Your task to perform on an android device: install app "eBay: The shopping marketplace" Image 0: 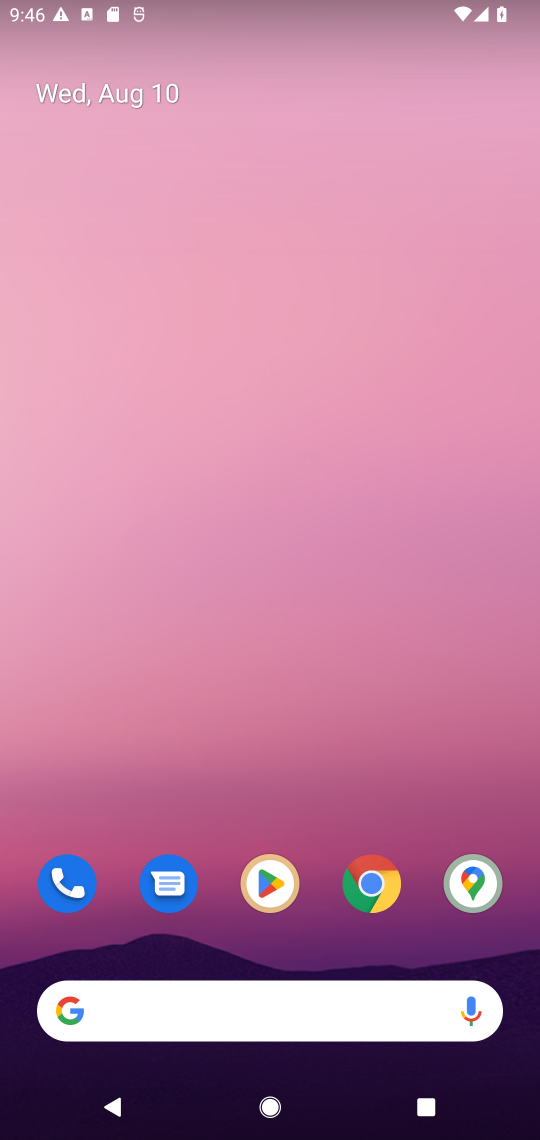
Step 0: drag from (338, 911) to (329, 215)
Your task to perform on an android device: install app "eBay: The shopping marketplace" Image 1: 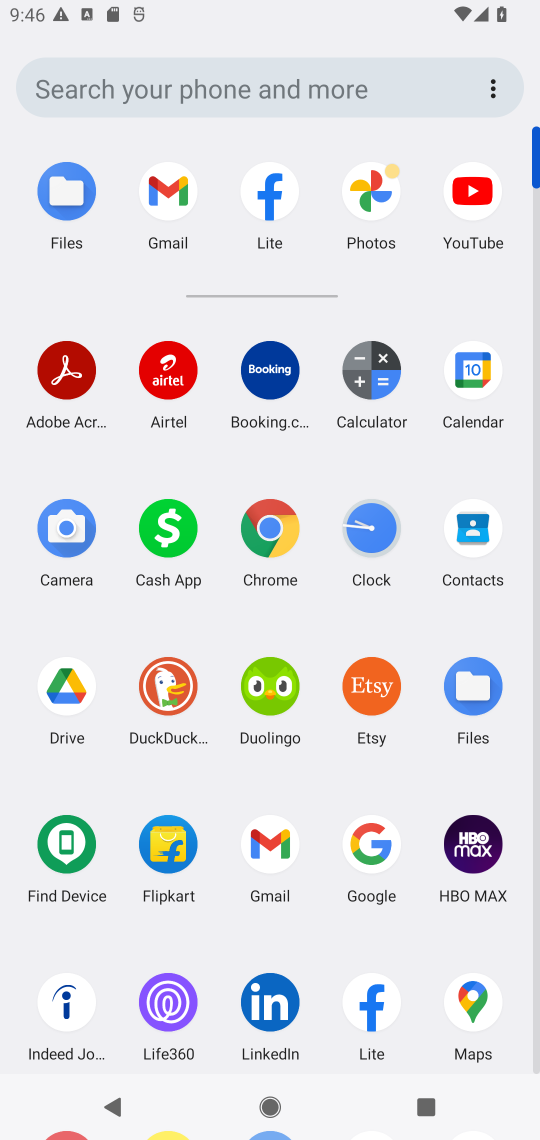
Step 1: drag from (318, 818) to (293, 388)
Your task to perform on an android device: install app "eBay: The shopping marketplace" Image 2: 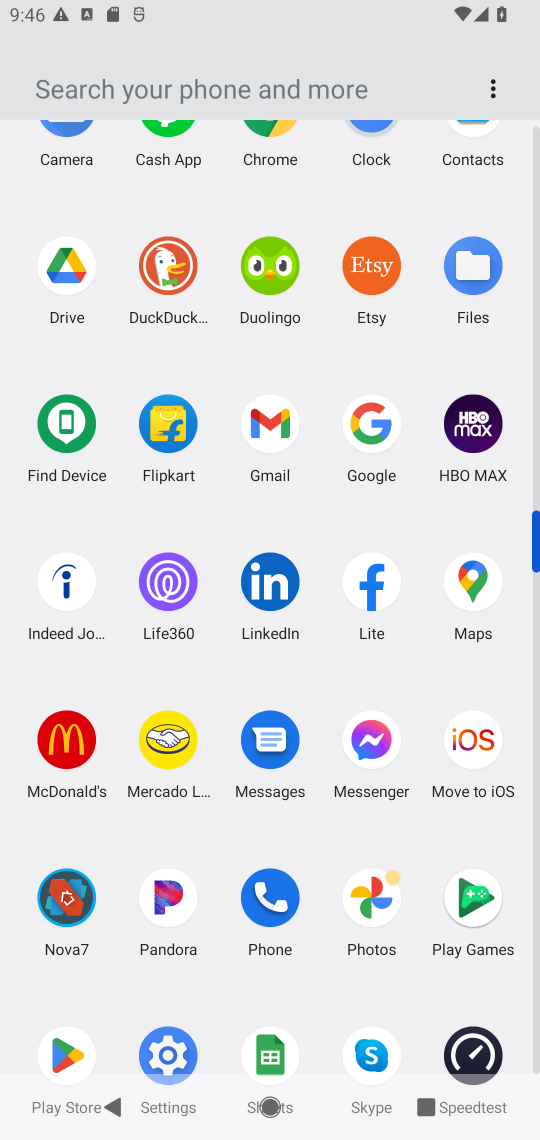
Step 2: click (61, 1056)
Your task to perform on an android device: install app "eBay: The shopping marketplace" Image 3: 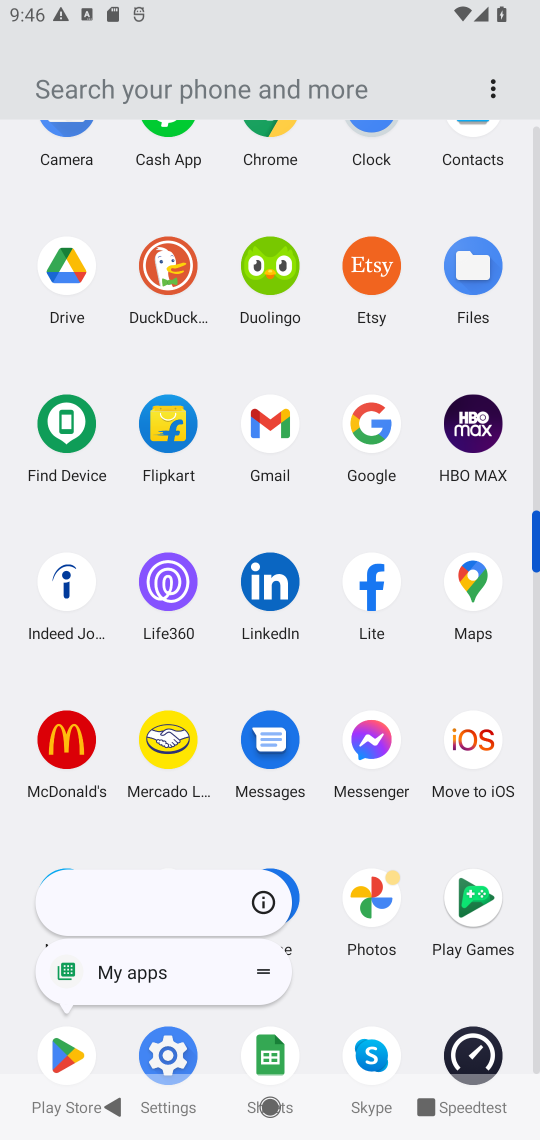
Step 3: click (61, 1054)
Your task to perform on an android device: install app "eBay: The shopping marketplace" Image 4: 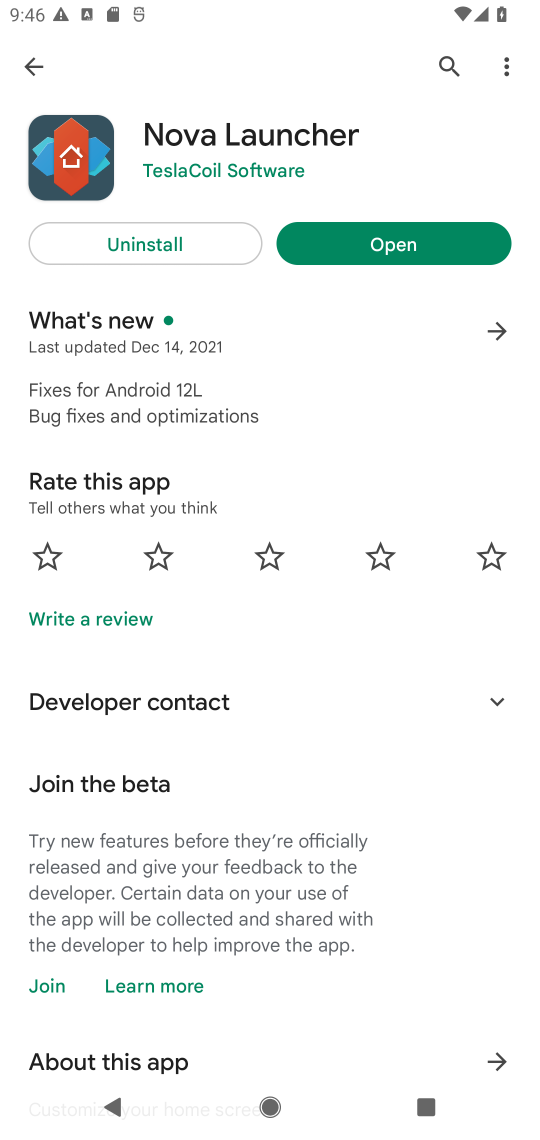
Step 4: click (452, 61)
Your task to perform on an android device: install app "eBay: The shopping marketplace" Image 5: 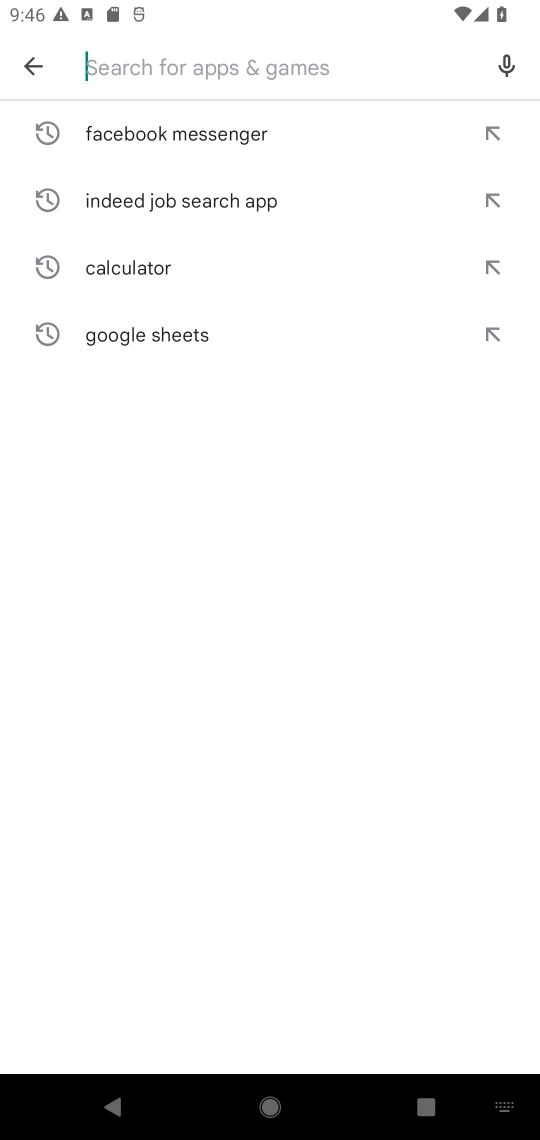
Step 5: type "eBay: The shopping marketplace"
Your task to perform on an android device: install app "eBay: The shopping marketplace" Image 6: 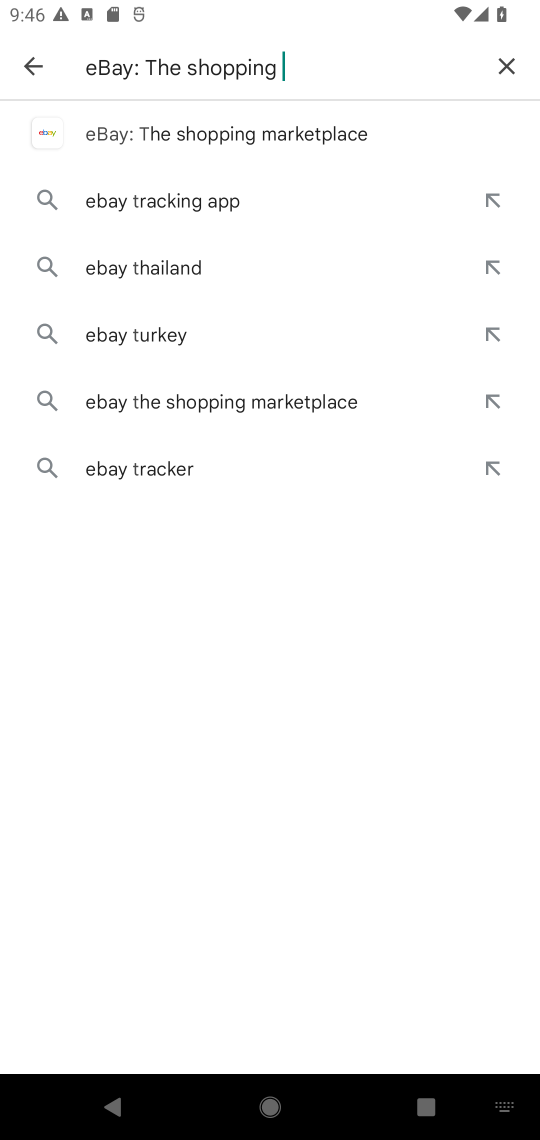
Step 6: type ""
Your task to perform on an android device: install app "eBay: The shopping marketplace" Image 7: 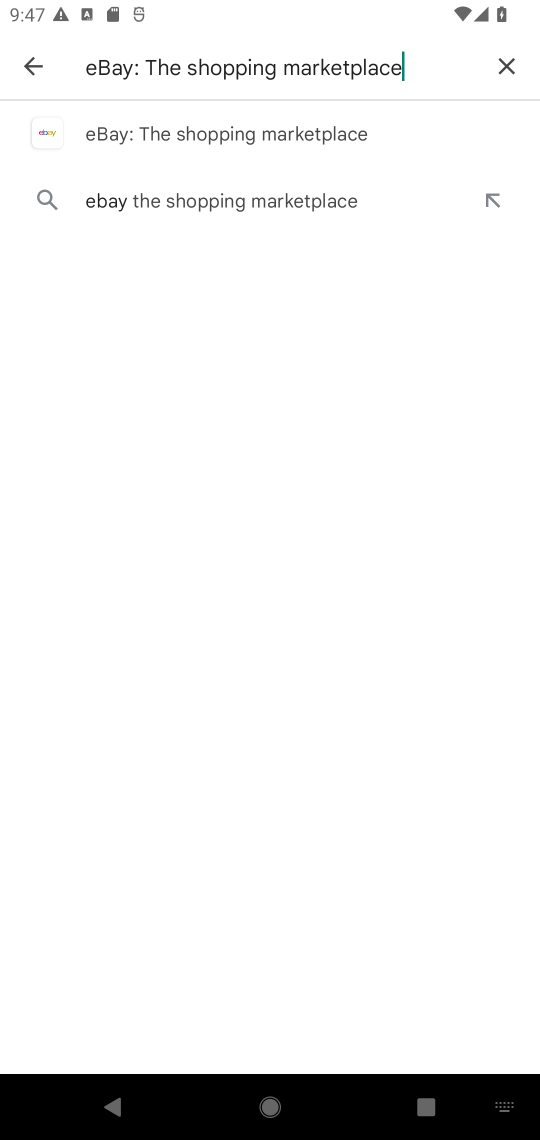
Step 7: click (259, 120)
Your task to perform on an android device: install app "eBay: The shopping marketplace" Image 8: 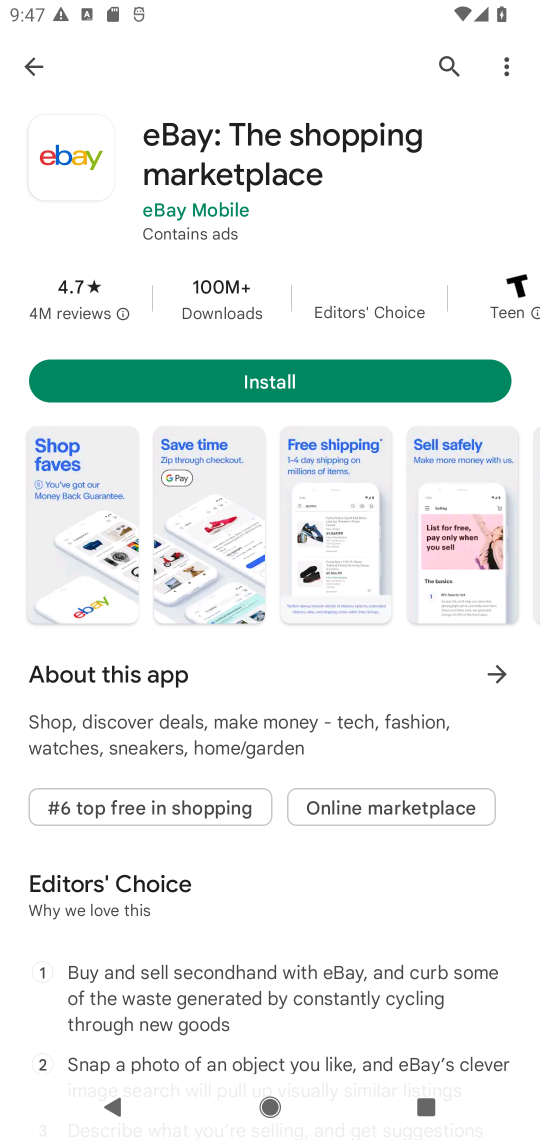
Step 8: click (295, 377)
Your task to perform on an android device: install app "eBay: The shopping marketplace" Image 9: 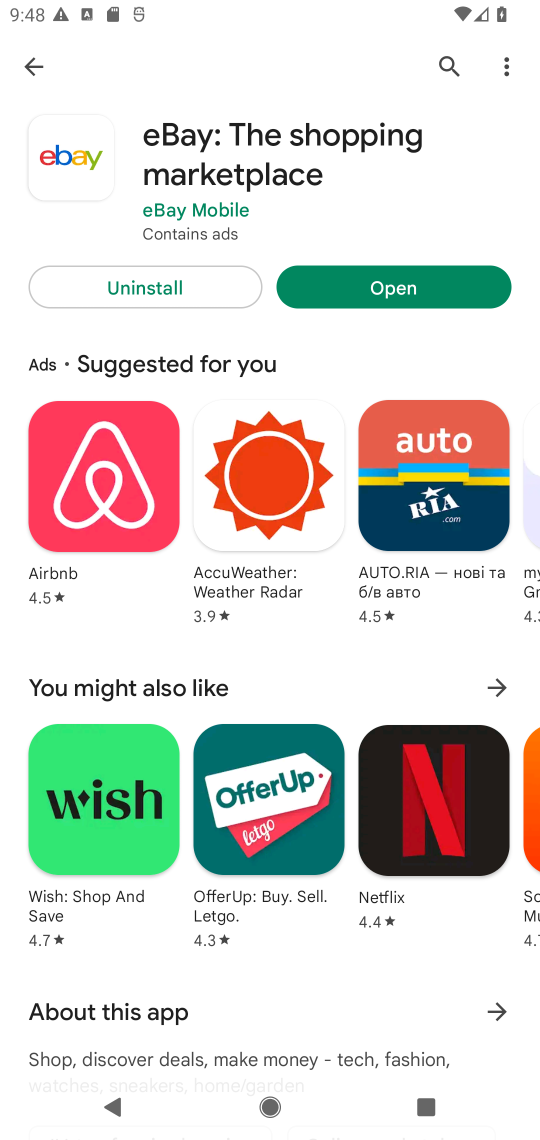
Step 9: task complete